Your task to perform on an android device: Open notification settings Image 0: 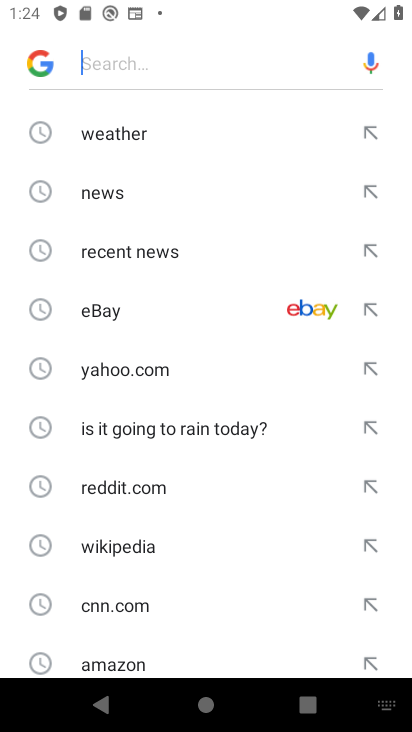
Step 0: press home button
Your task to perform on an android device: Open notification settings Image 1: 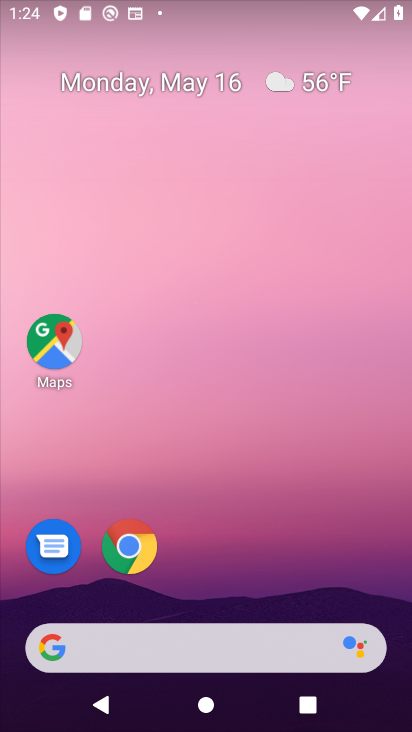
Step 1: drag from (307, 587) to (325, 77)
Your task to perform on an android device: Open notification settings Image 2: 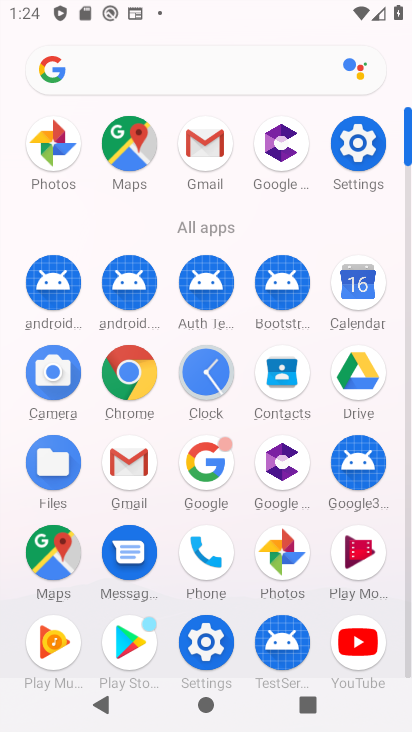
Step 2: click (364, 137)
Your task to perform on an android device: Open notification settings Image 3: 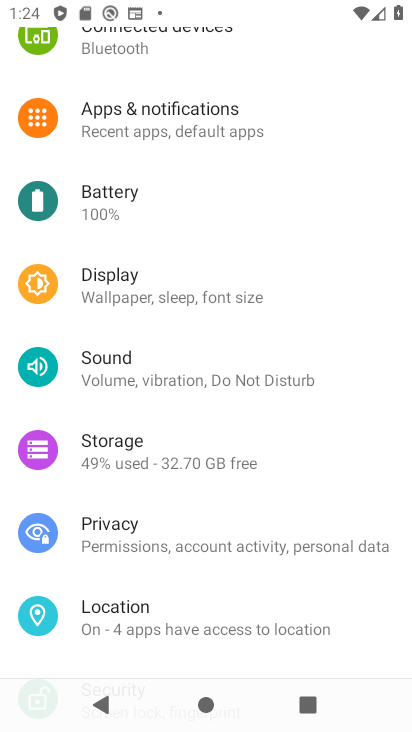
Step 3: click (191, 119)
Your task to perform on an android device: Open notification settings Image 4: 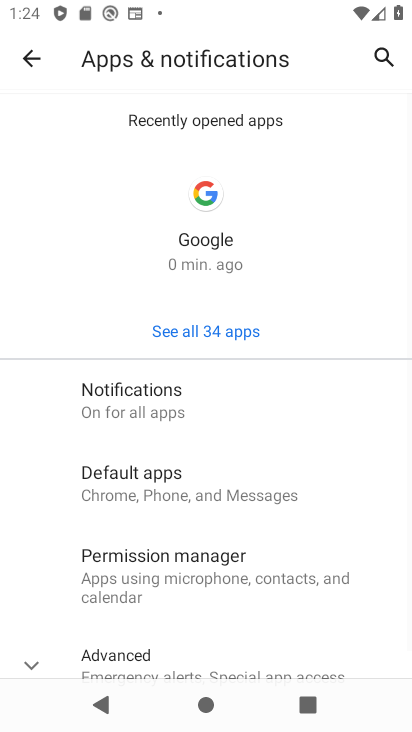
Step 4: click (146, 404)
Your task to perform on an android device: Open notification settings Image 5: 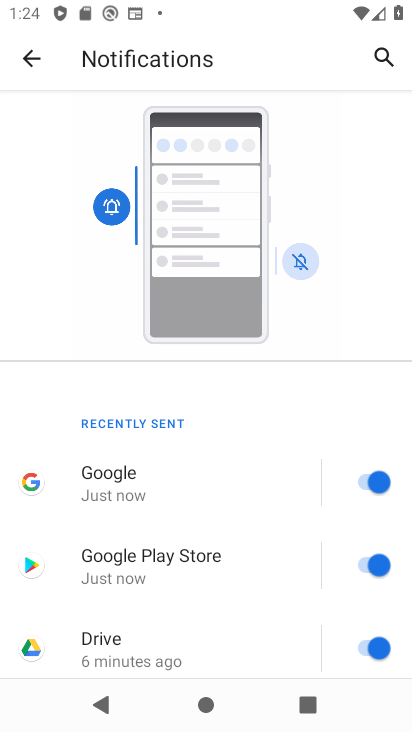
Step 5: task complete